Your task to perform on an android device: turn off picture-in-picture Image 0: 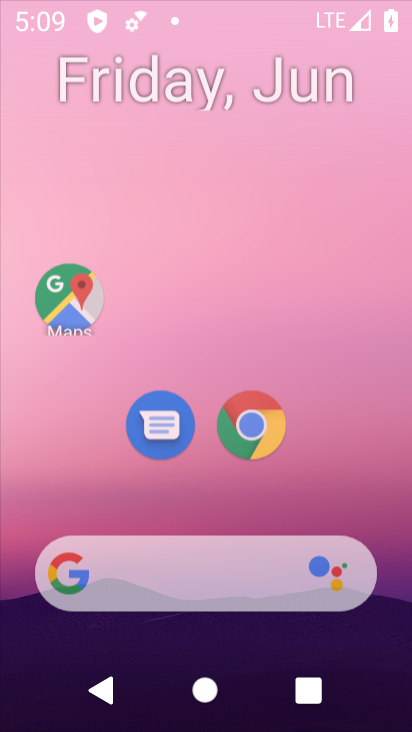
Step 0: drag from (374, 456) to (329, 64)
Your task to perform on an android device: turn off picture-in-picture Image 1: 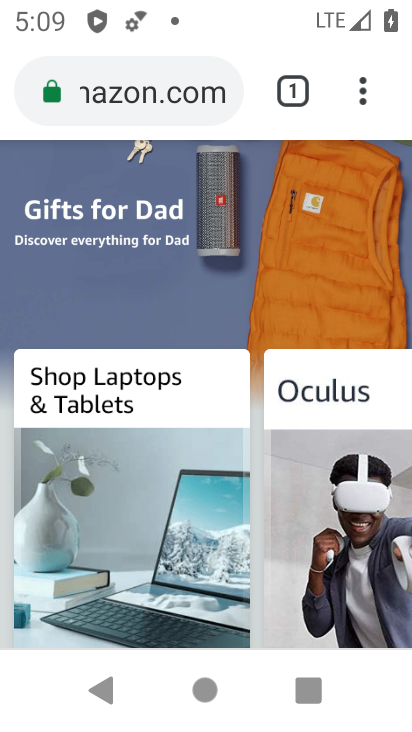
Step 1: press back button
Your task to perform on an android device: turn off picture-in-picture Image 2: 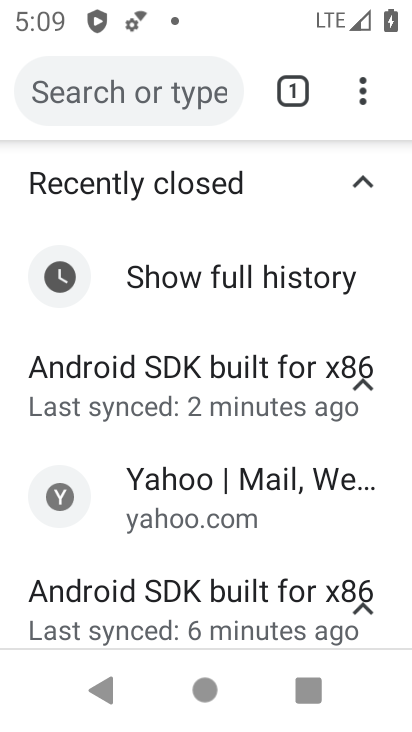
Step 2: press back button
Your task to perform on an android device: turn off picture-in-picture Image 3: 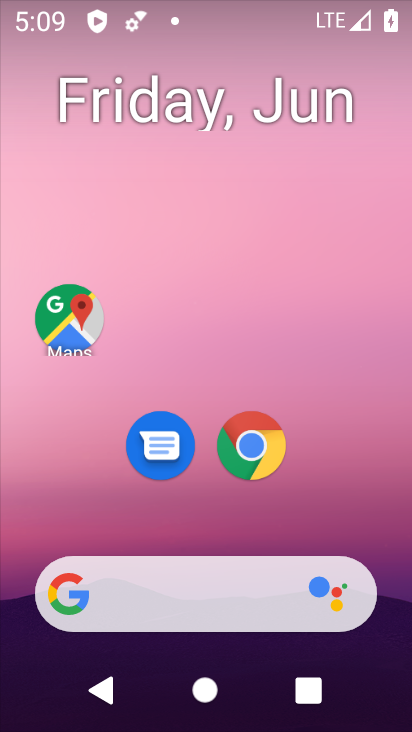
Step 3: drag from (390, 526) to (349, 64)
Your task to perform on an android device: turn off picture-in-picture Image 4: 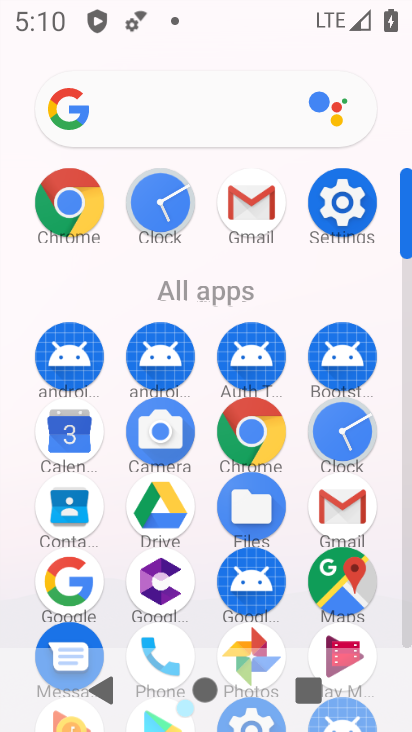
Step 4: click (342, 199)
Your task to perform on an android device: turn off picture-in-picture Image 5: 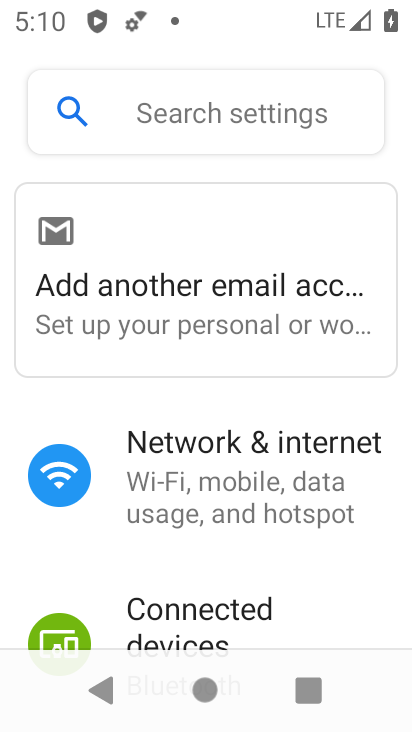
Step 5: drag from (342, 572) to (339, 146)
Your task to perform on an android device: turn off picture-in-picture Image 6: 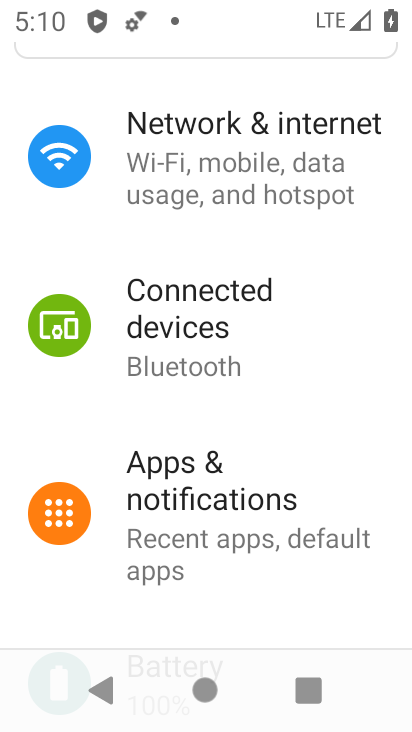
Step 6: drag from (334, 378) to (337, 148)
Your task to perform on an android device: turn off picture-in-picture Image 7: 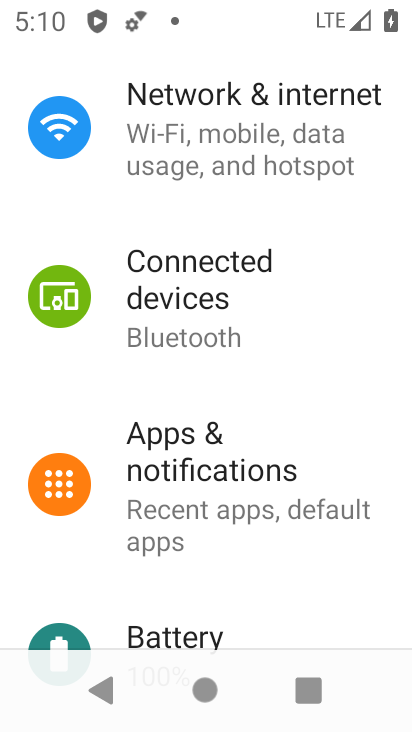
Step 7: drag from (335, 541) to (335, 128)
Your task to perform on an android device: turn off picture-in-picture Image 8: 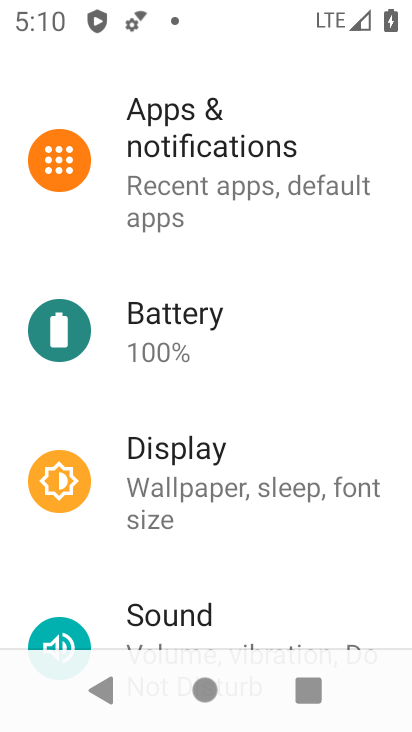
Step 8: drag from (299, 535) to (299, 171)
Your task to perform on an android device: turn off picture-in-picture Image 9: 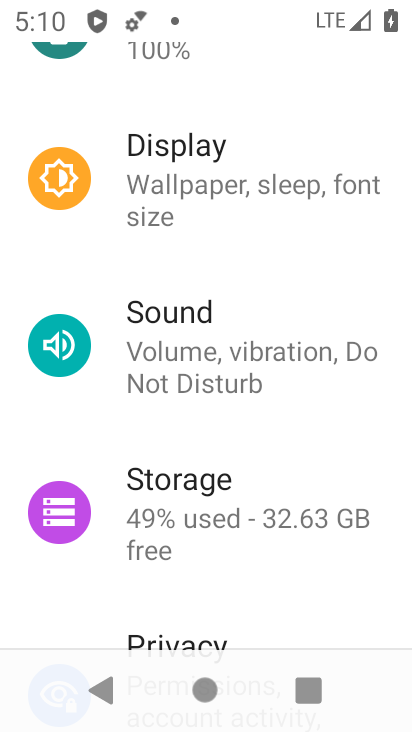
Step 9: drag from (305, 576) to (304, 153)
Your task to perform on an android device: turn off picture-in-picture Image 10: 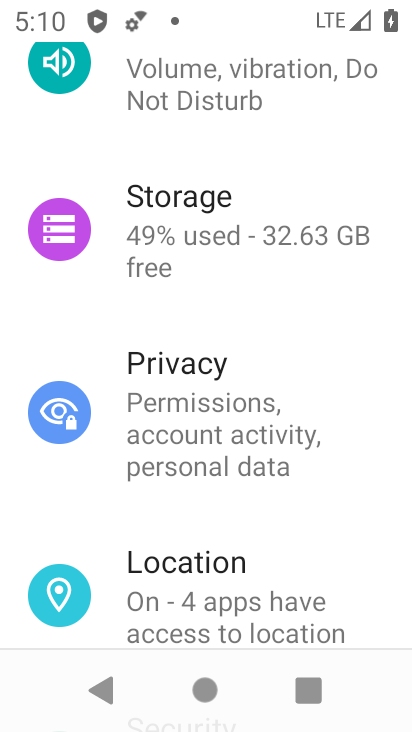
Step 10: drag from (299, 550) to (299, 174)
Your task to perform on an android device: turn off picture-in-picture Image 11: 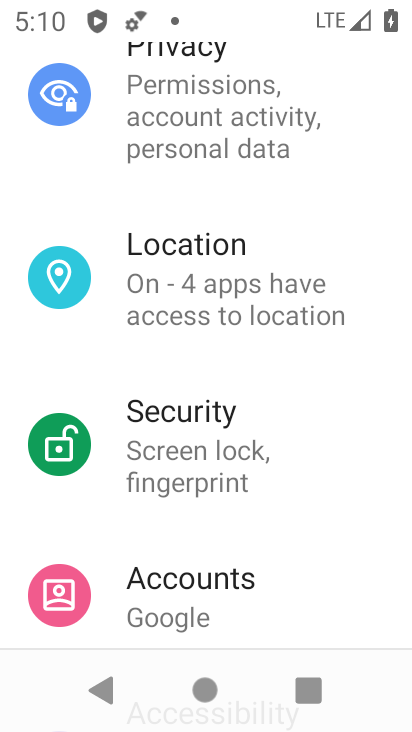
Step 11: drag from (310, 538) to (318, 167)
Your task to perform on an android device: turn off picture-in-picture Image 12: 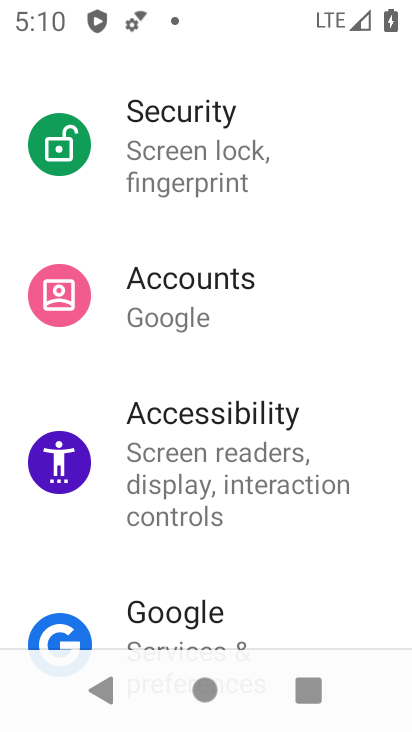
Step 12: drag from (274, 595) to (281, 185)
Your task to perform on an android device: turn off picture-in-picture Image 13: 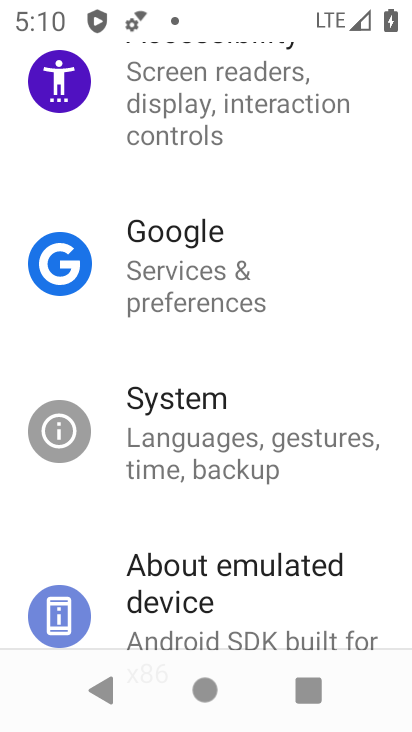
Step 13: drag from (291, 572) to (305, 161)
Your task to perform on an android device: turn off picture-in-picture Image 14: 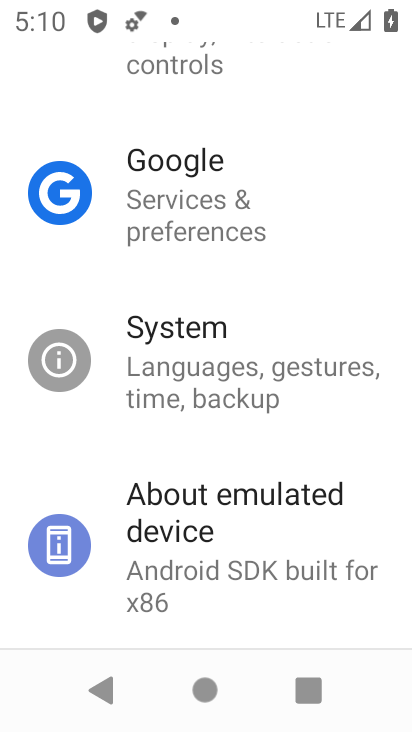
Step 14: drag from (305, 163) to (311, 522)
Your task to perform on an android device: turn off picture-in-picture Image 15: 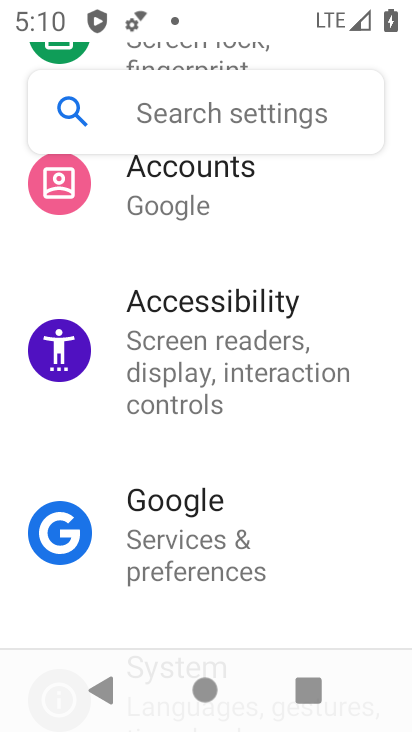
Step 15: drag from (315, 210) to (313, 588)
Your task to perform on an android device: turn off picture-in-picture Image 16: 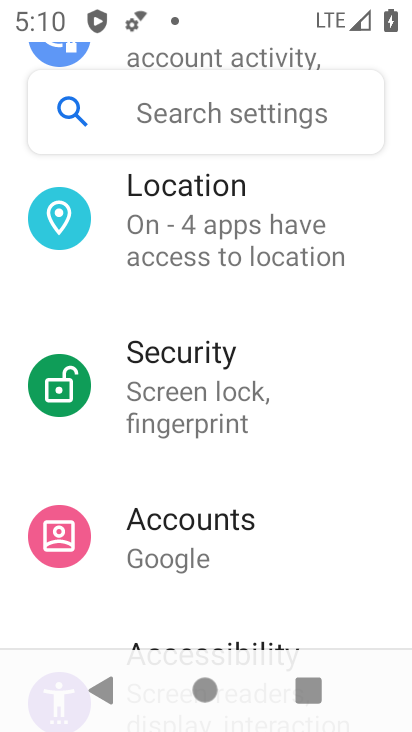
Step 16: drag from (310, 216) to (310, 582)
Your task to perform on an android device: turn off picture-in-picture Image 17: 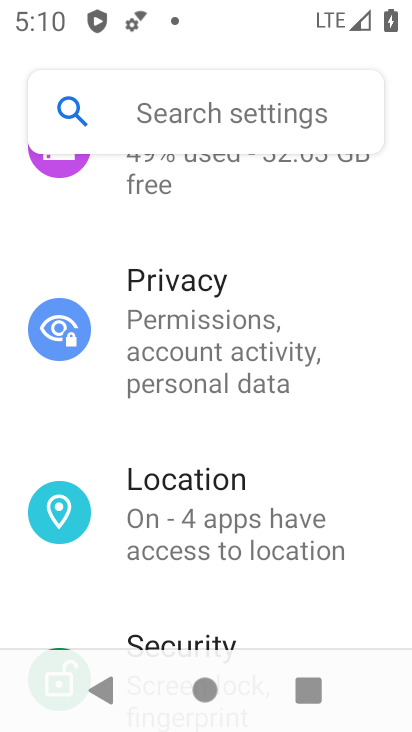
Step 17: drag from (303, 214) to (303, 578)
Your task to perform on an android device: turn off picture-in-picture Image 18: 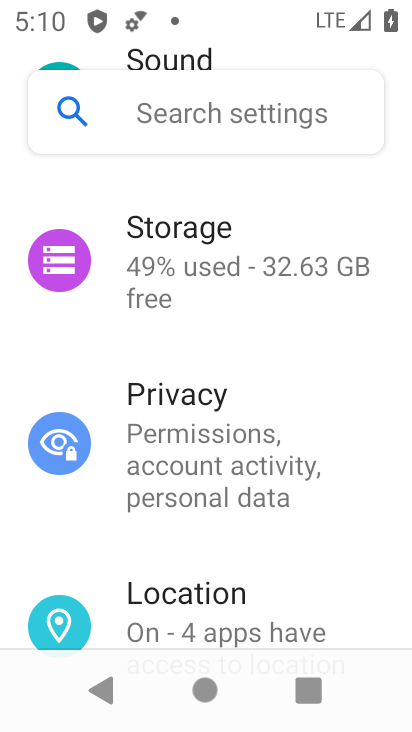
Step 18: drag from (302, 227) to (300, 631)
Your task to perform on an android device: turn off picture-in-picture Image 19: 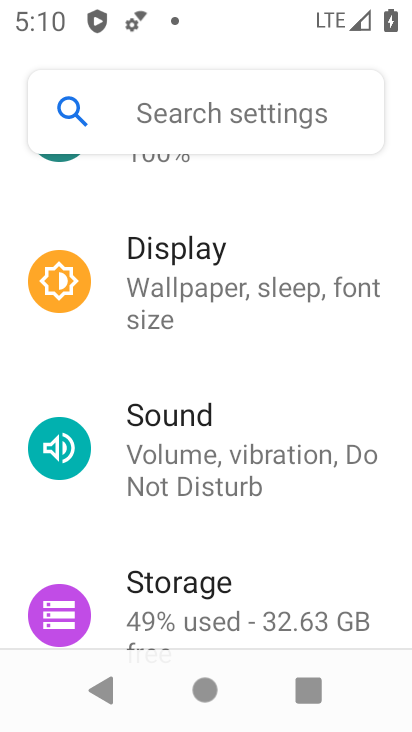
Step 19: drag from (288, 268) to (287, 626)
Your task to perform on an android device: turn off picture-in-picture Image 20: 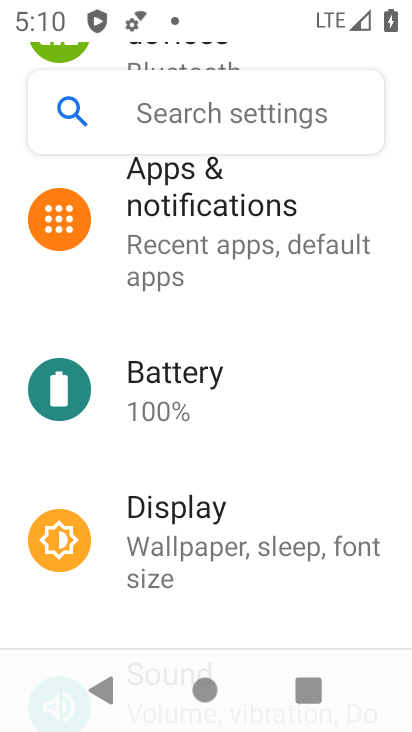
Step 20: click (271, 216)
Your task to perform on an android device: turn off picture-in-picture Image 21: 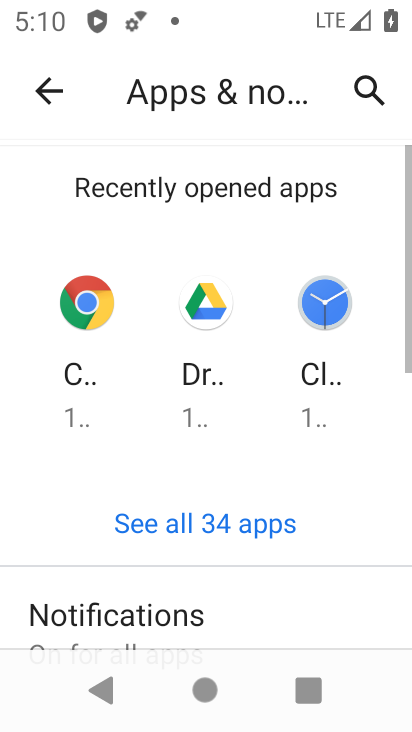
Step 21: drag from (283, 615) to (255, 227)
Your task to perform on an android device: turn off picture-in-picture Image 22: 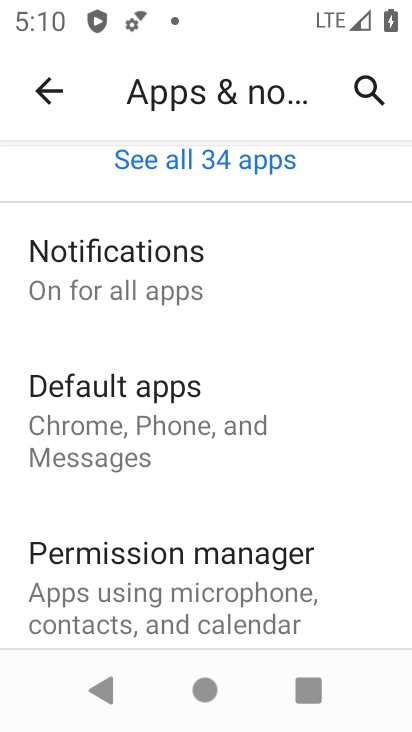
Step 22: drag from (223, 579) to (248, 224)
Your task to perform on an android device: turn off picture-in-picture Image 23: 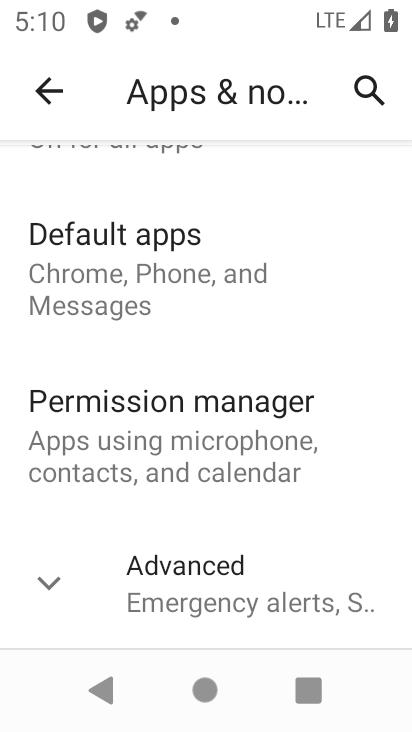
Step 23: click (49, 565)
Your task to perform on an android device: turn off picture-in-picture Image 24: 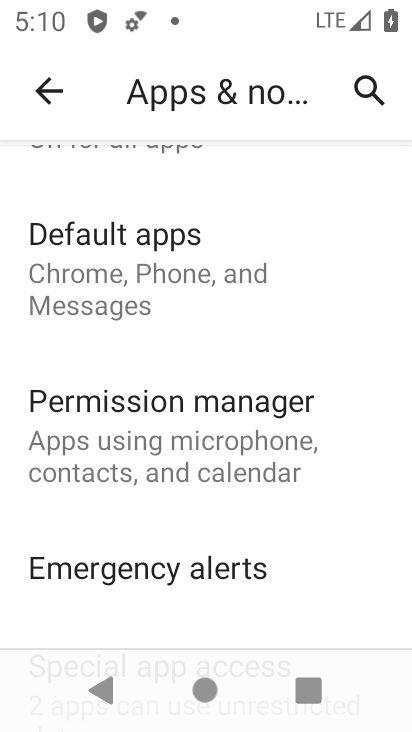
Step 24: drag from (331, 553) to (305, 167)
Your task to perform on an android device: turn off picture-in-picture Image 25: 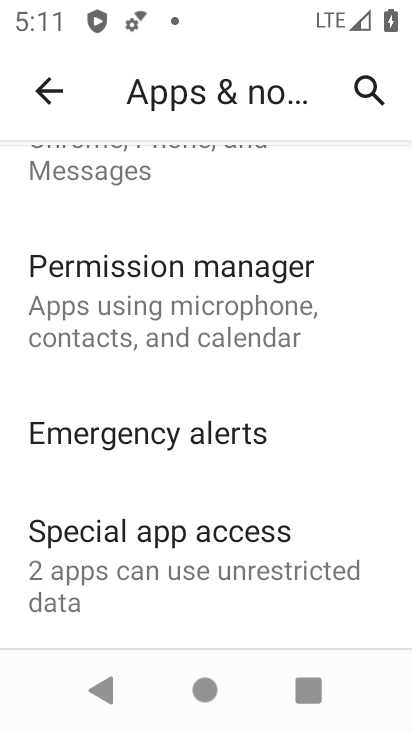
Step 25: click (211, 549)
Your task to perform on an android device: turn off picture-in-picture Image 26: 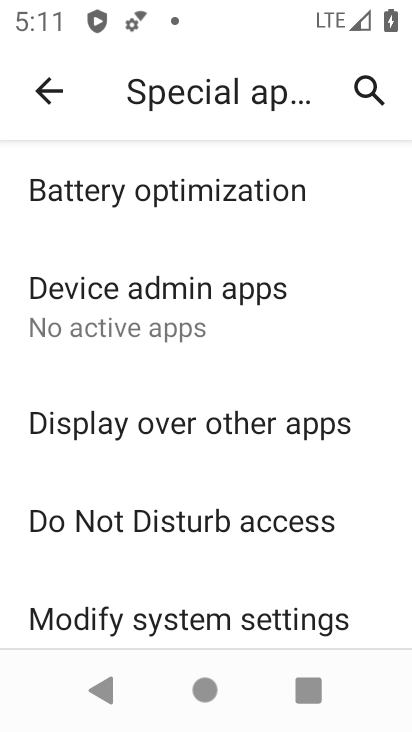
Step 26: drag from (277, 524) to (270, 168)
Your task to perform on an android device: turn off picture-in-picture Image 27: 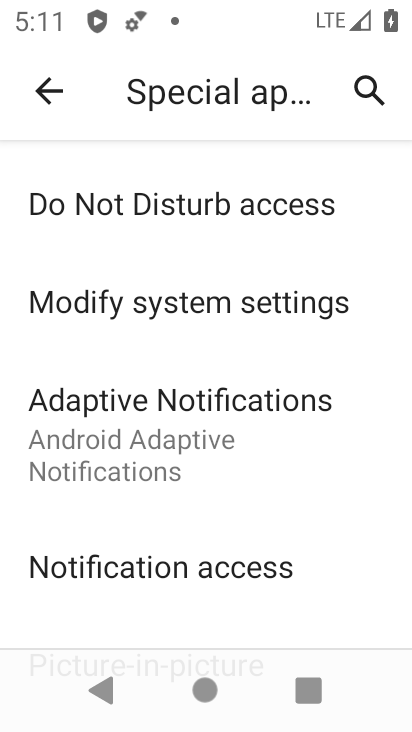
Step 27: drag from (235, 531) to (235, 156)
Your task to perform on an android device: turn off picture-in-picture Image 28: 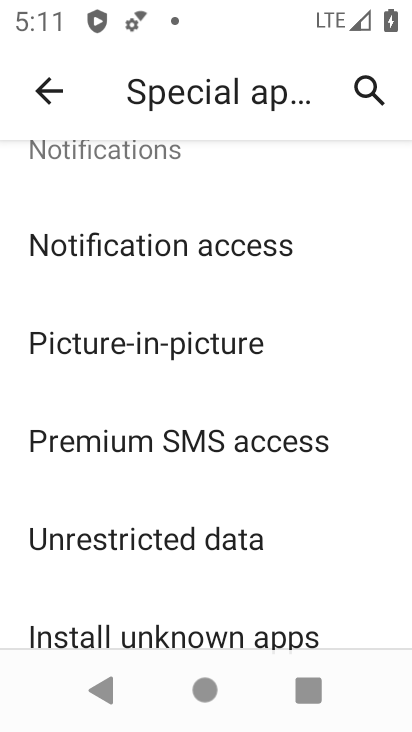
Step 28: click (165, 338)
Your task to perform on an android device: turn off picture-in-picture Image 29: 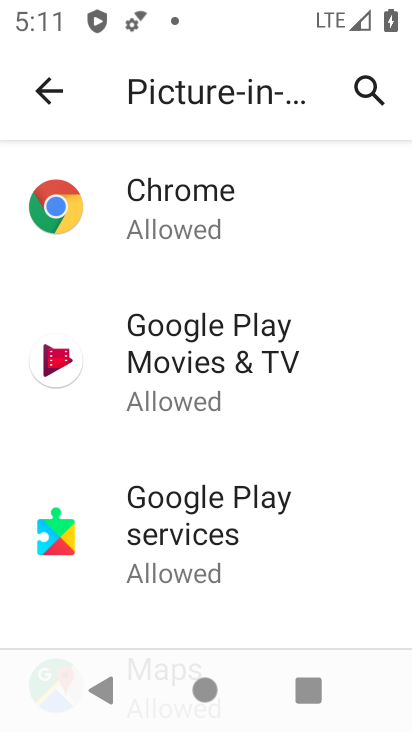
Step 29: click (224, 214)
Your task to perform on an android device: turn off picture-in-picture Image 30: 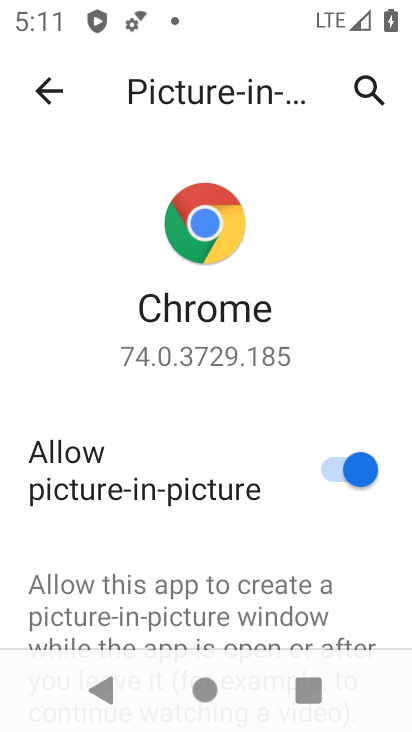
Step 30: click (334, 451)
Your task to perform on an android device: turn off picture-in-picture Image 31: 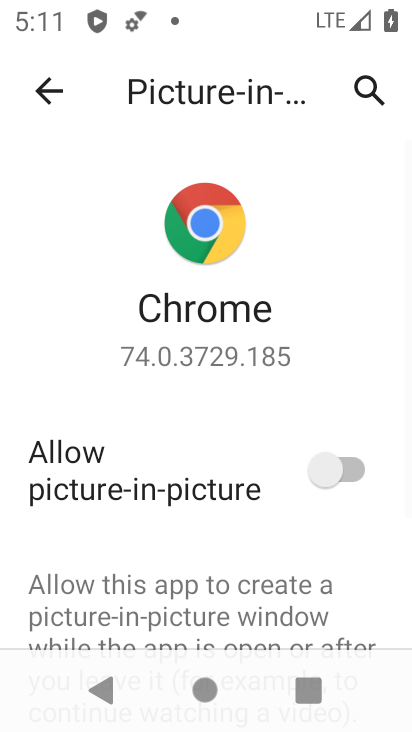
Step 31: click (58, 93)
Your task to perform on an android device: turn off picture-in-picture Image 32: 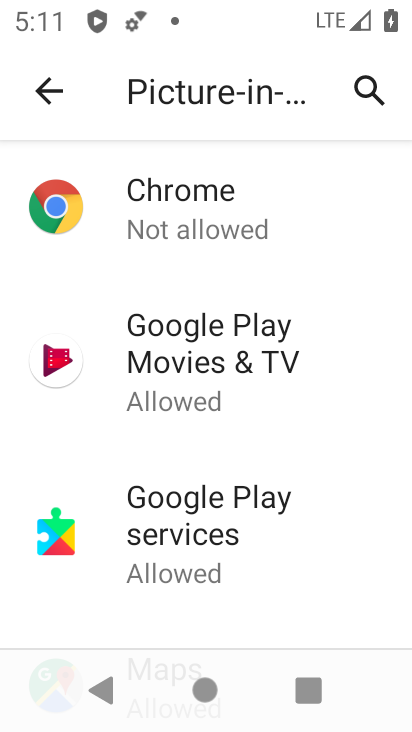
Step 32: click (212, 371)
Your task to perform on an android device: turn off picture-in-picture Image 33: 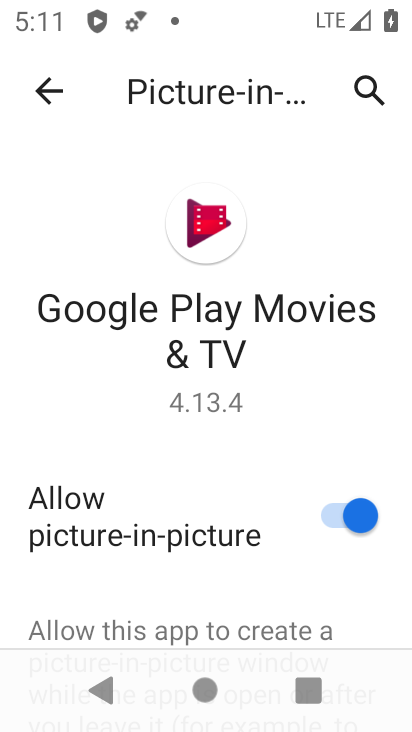
Step 33: click (341, 499)
Your task to perform on an android device: turn off picture-in-picture Image 34: 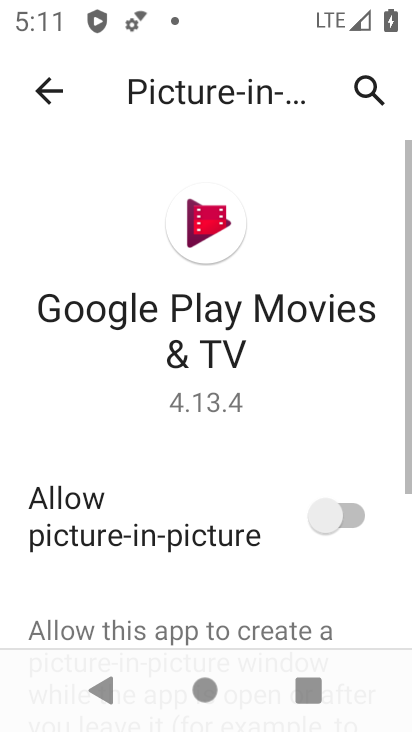
Step 34: click (42, 82)
Your task to perform on an android device: turn off picture-in-picture Image 35: 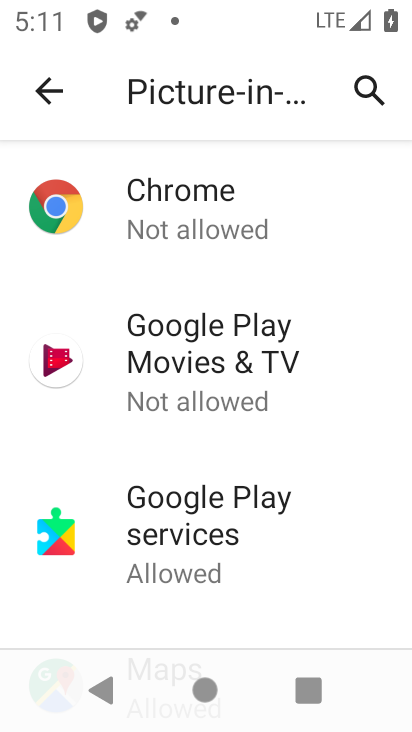
Step 35: click (191, 546)
Your task to perform on an android device: turn off picture-in-picture Image 36: 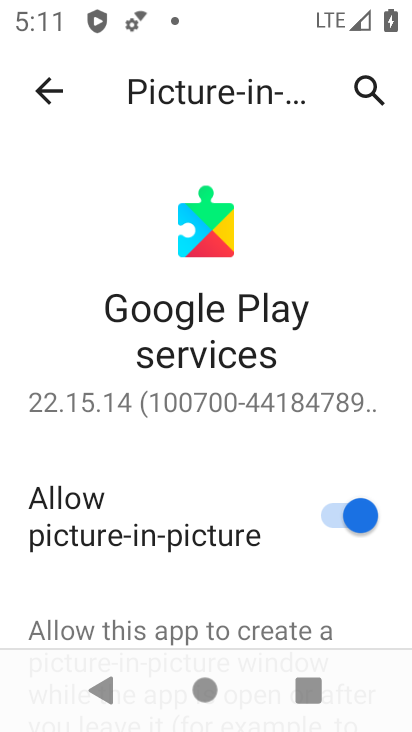
Step 36: click (330, 508)
Your task to perform on an android device: turn off picture-in-picture Image 37: 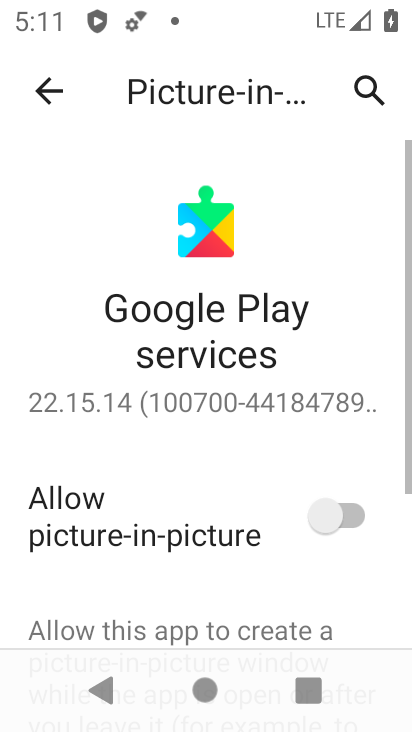
Step 37: click (52, 83)
Your task to perform on an android device: turn off picture-in-picture Image 38: 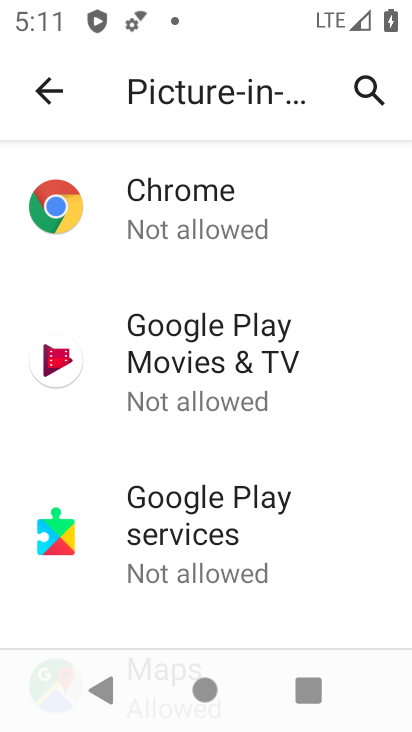
Step 38: drag from (282, 365) to (282, 160)
Your task to perform on an android device: turn off picture-in-picture Image 39: 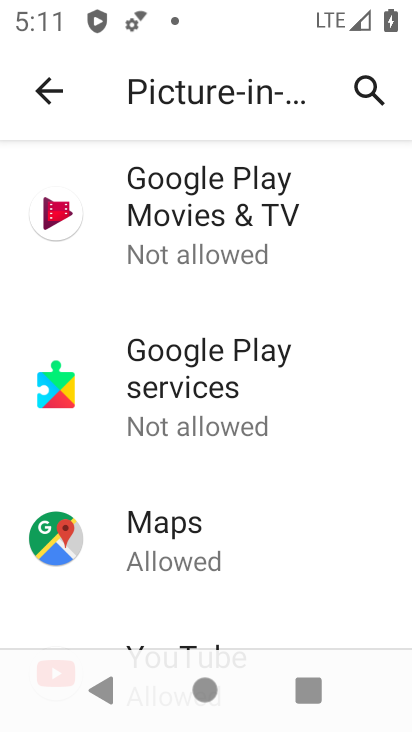
Step 39: click (204, 547)
Your task to perform on an android device: turn off picture-in-picture Image 40: 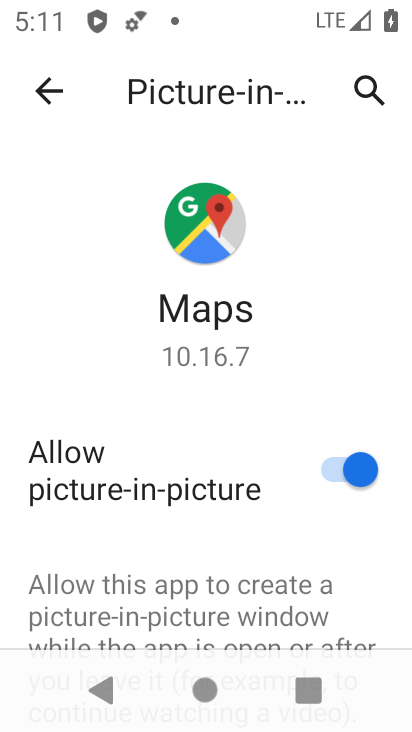
Step 40: click (343, 460)
Your task to perform on an android device: turn off picture-in-picture Image 41: 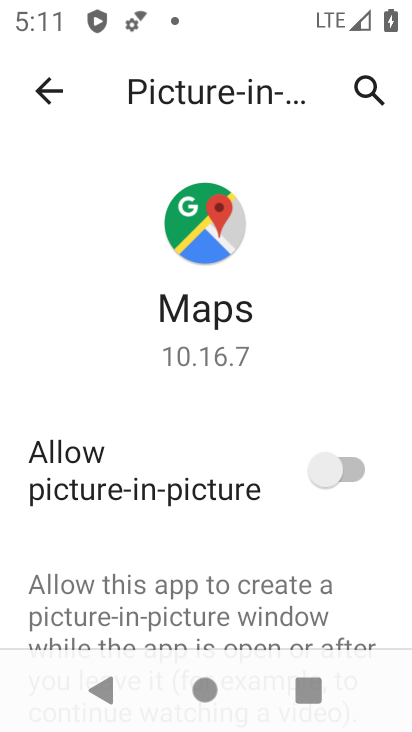
Step 41: click (56, 86)
Your task to perform on an android device: turn off picture-in-picture Image 42: 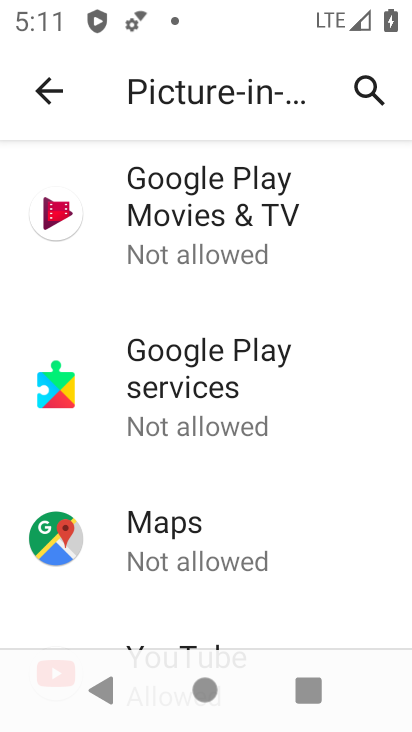
Step 42: drag from (275, 524) to (275, 165)
Your task to perform on an android device: turn off picture-in-picture Image 43: 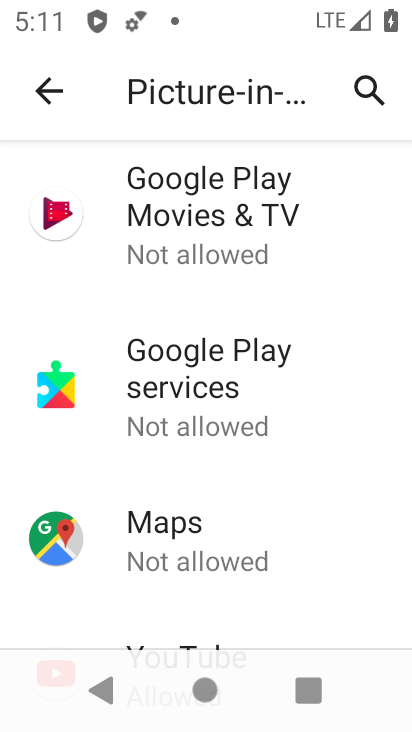
Step 43: drag from (295, 544) to (304, 177)
Your task to perform on an android device: turn off picture-in-picture Image 44: 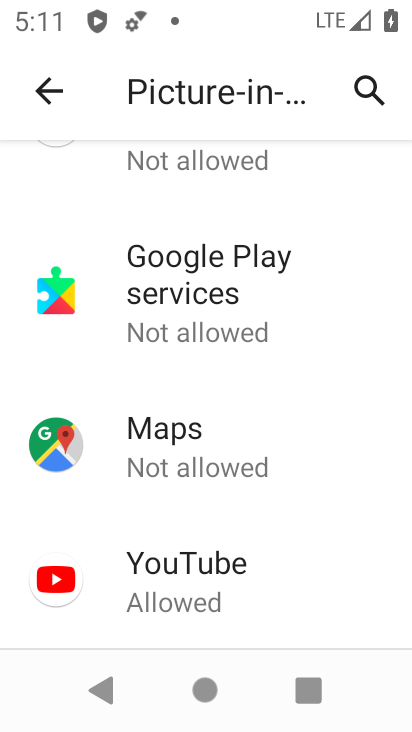
Step 44: click (218, 578)
Your task to perform on an android device: turn off picture-in-picture Image 45: 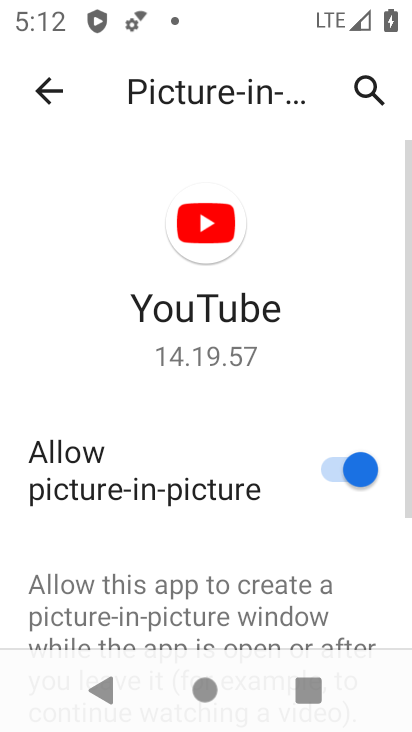
Step 45: click (327, 467)
Your task to perform on an android device: turn off picture-in-picture Image 46: 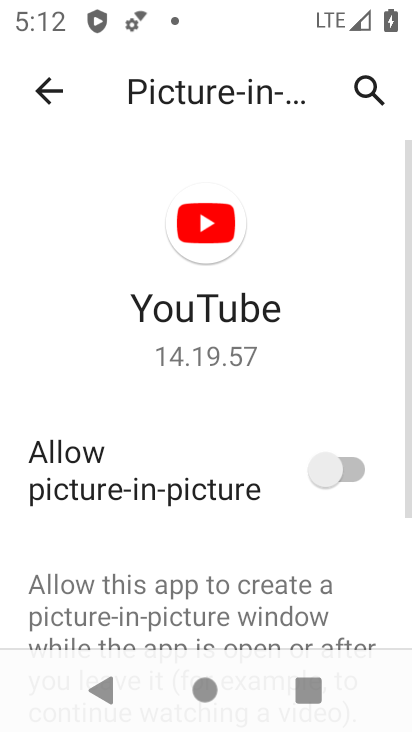
Step 46: click (52, 82)
Your task to perform on an android device: turn off picture-in-picture Image 47: 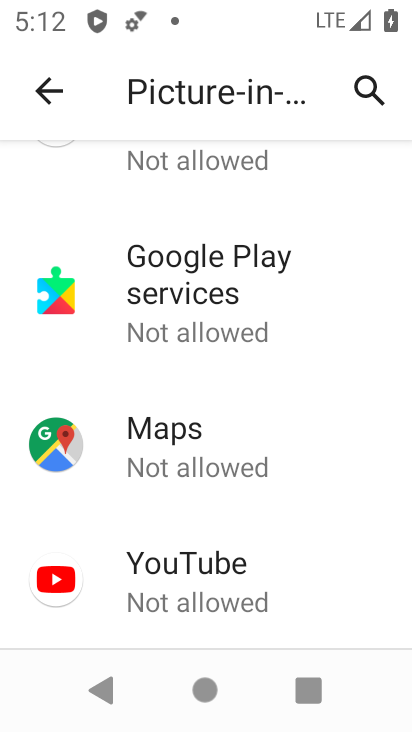
Step 47: task complete